Your task to perform on an android device: What's the weather? Image 0: 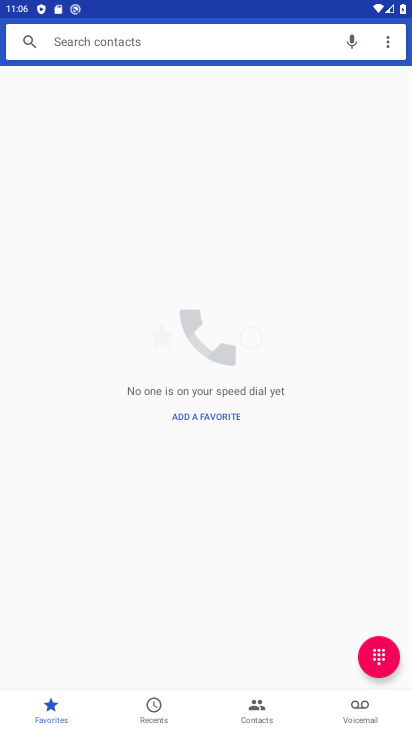
Step 0: drag from (251, 650) to (407, 321)
Your task to perform on an android device: What's the weather? Image 1: 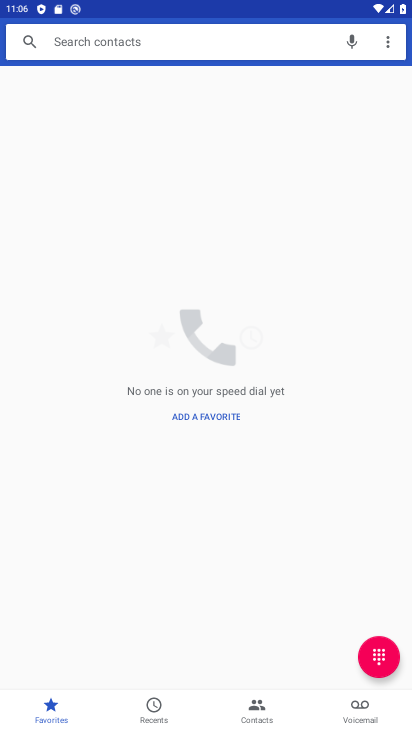
Step 1: press home button
Your task to perform on an android device: What's the weather? Image 2: 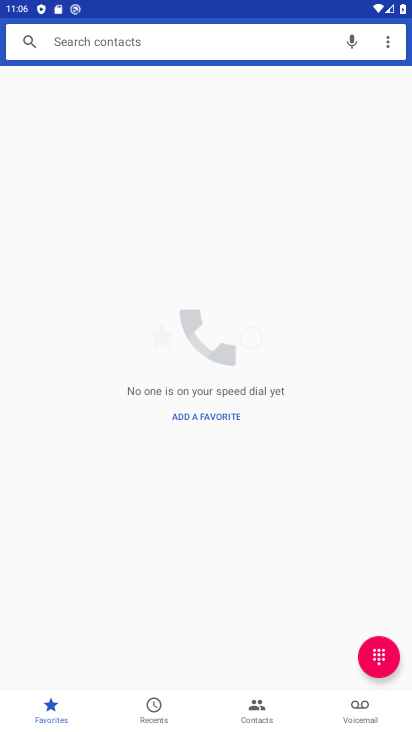
Step 2: drag from (407, 321) to (332, 253)
Your task to perform on an android device: What's the weather? Image 3: 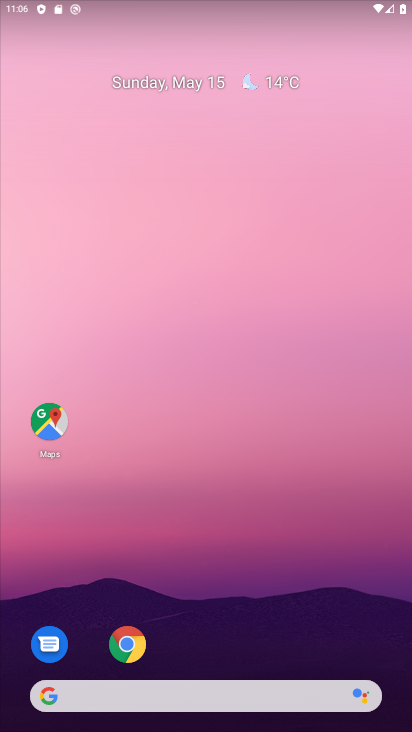
Step 3: click (138, 645)
Your task to perform on an android device: What's the weather? Image 4: 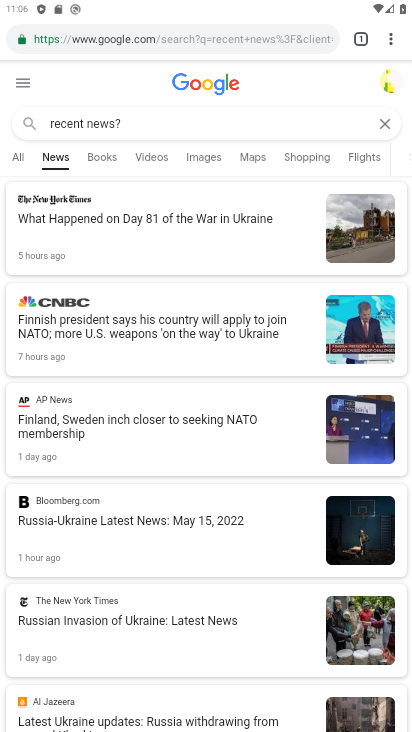
Step 4: click (386, 120)
Your task to perform on an android device: What's the weather? Image 5: 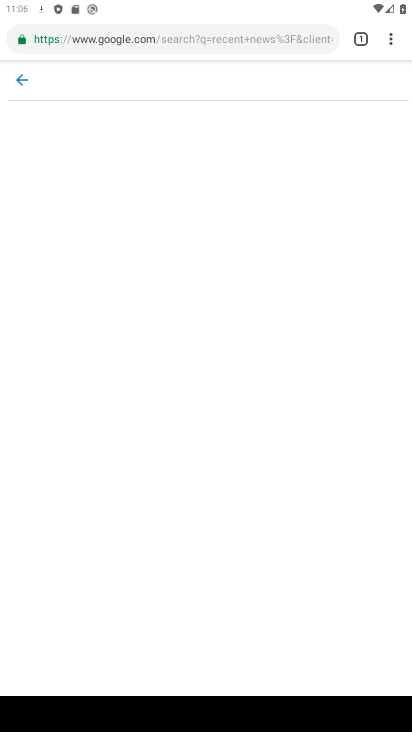
Step 5: click (105, 76)
Your task to perform on an android device: What's the weather? Image 6: 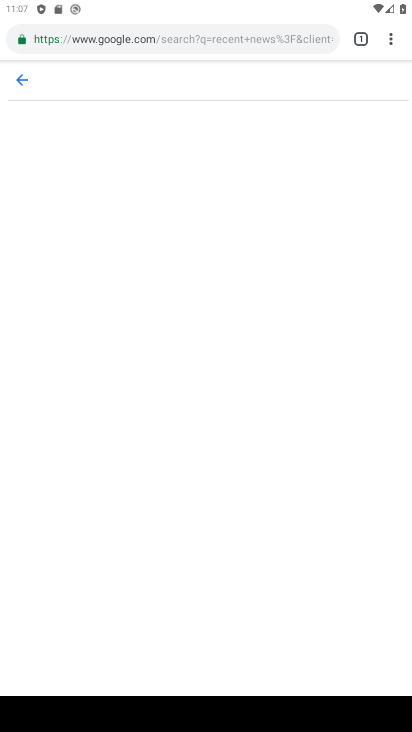
Step 6: type "what's the weather?"
Your task to perform on an android device: What's the weather? Image 7: 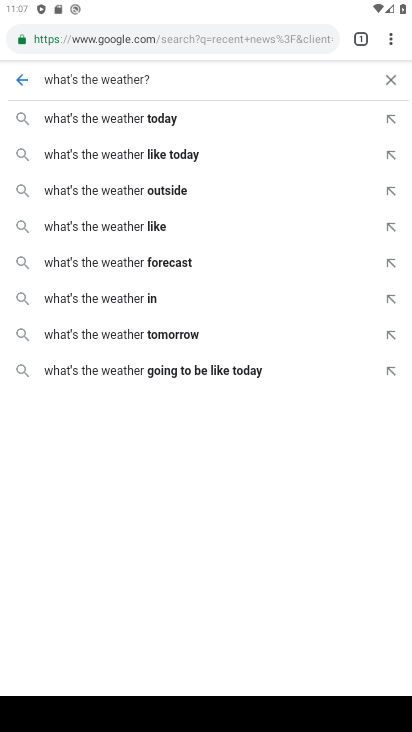
Step 7: click (158, 81)
Your task to perform on an android device: What's the weather? Image 8: 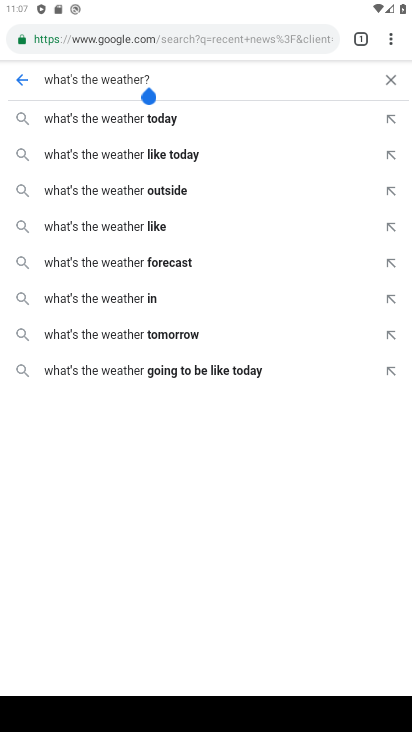
Step 8: click (82, 80)
Your task to perform on an android device: What's the weather? Image 9: 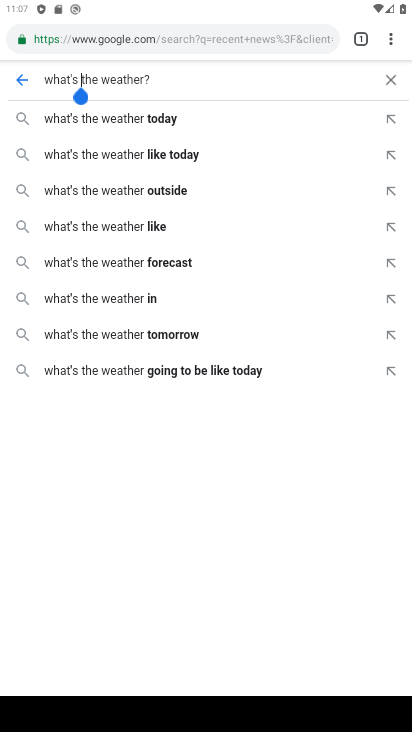
Step 9: click (144, 81)
Your task to perform on an android device: What's the weather? Image 10: 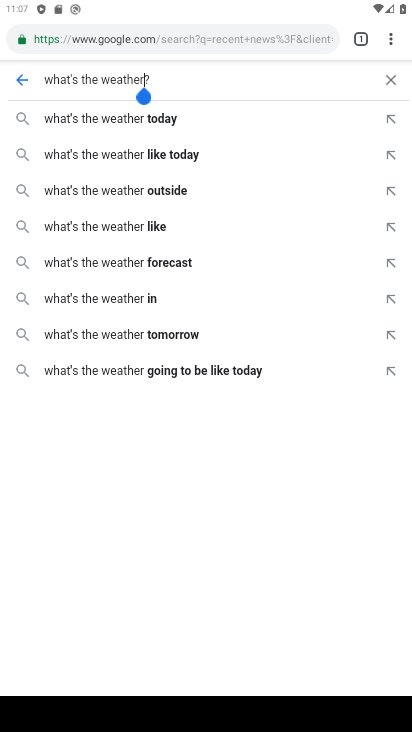
Step 10: click (144, 81)
Your task to perform on an android device: What's the weather? Image 11: 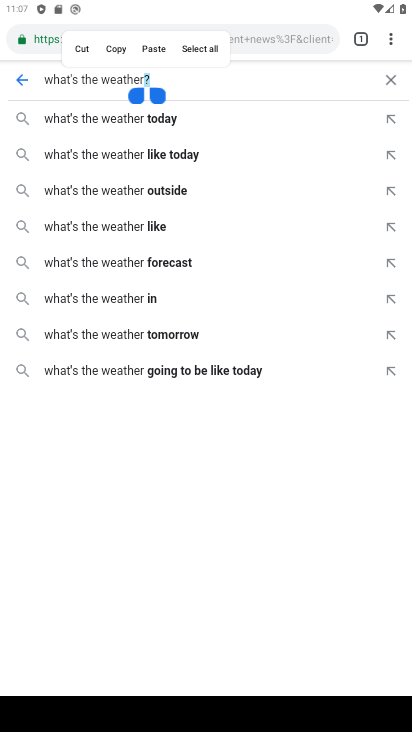
Step 11: click (83, 49)
Your task to perform on an android device: What's the weather? Image 12: 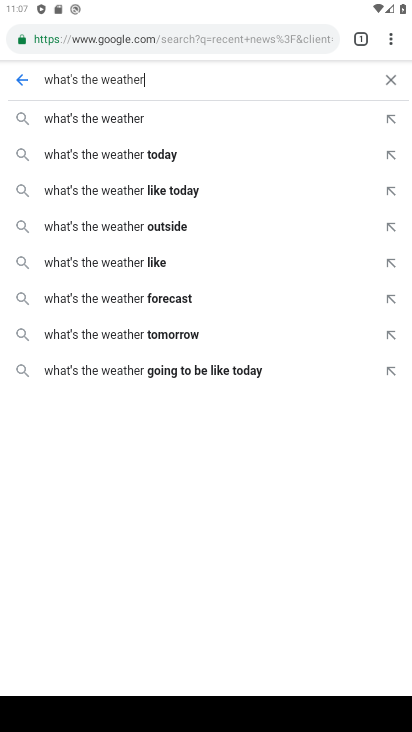
Step 12: click (99, 114)
Your task to perform on an android device: What's the weather? Image 13: 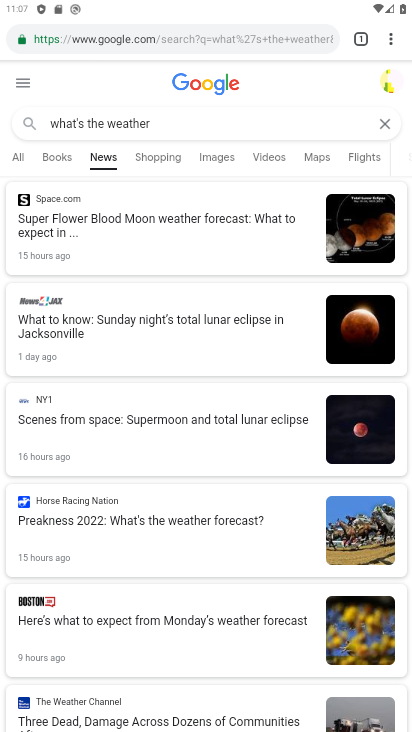
Step 13: click (25, 156)
Your task to perform on an android device: What's the weather? Image 14: 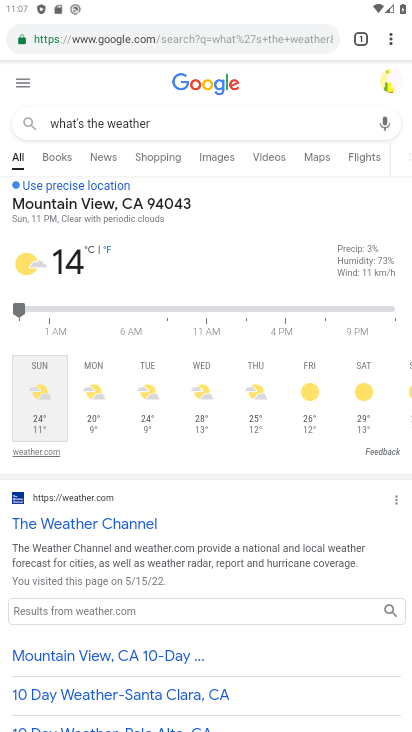
Step 14: task complete